Your task to perform on an android device: find photos in the google photos app Image 0: 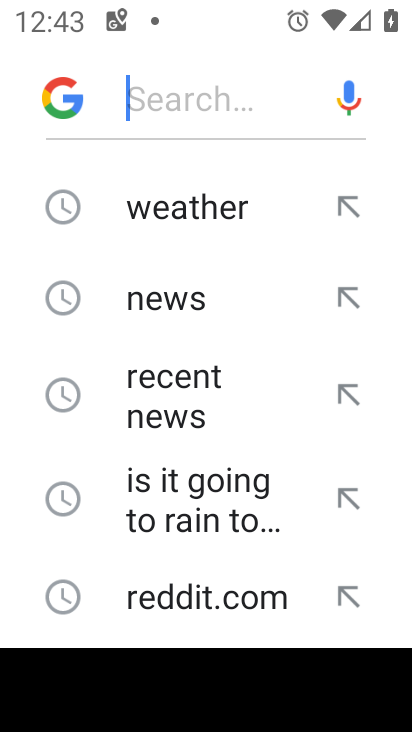
Step 0: press home button
Your task to perform on an android device: find photos in the google photos app Image 1: 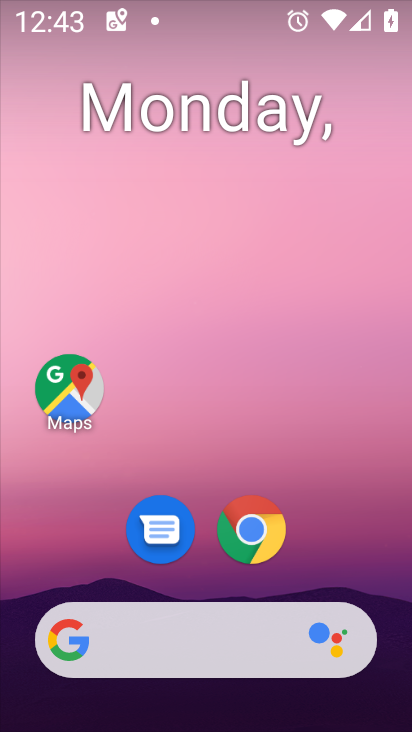
Step 1: drag from (166, 678) to (192, 115)
Your task to perform on an android device: find photos in the google photos app Image 2: 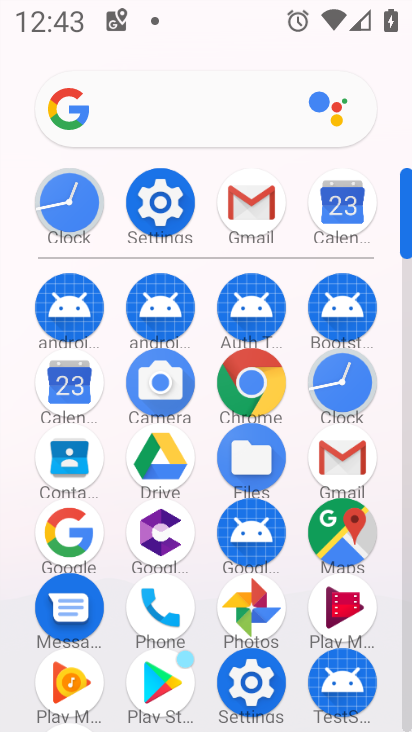
Step 2: click (250, 614)
Your task to perform on an android device: find photos in the google photos app Image 3: 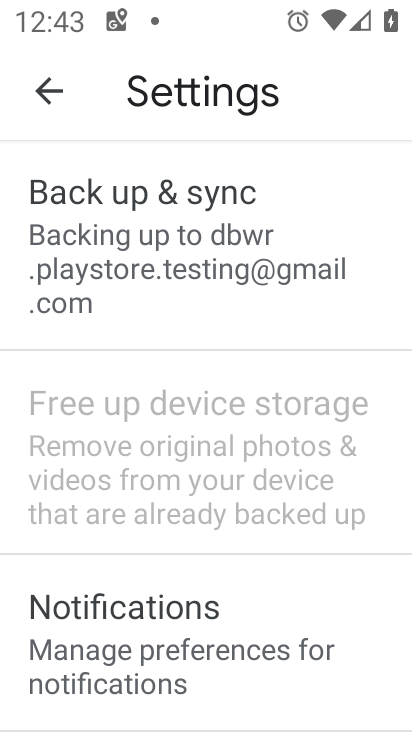
Step 3: click (47, 91)
Your task to perform on an android device: find photos in the google photos app Image 4: 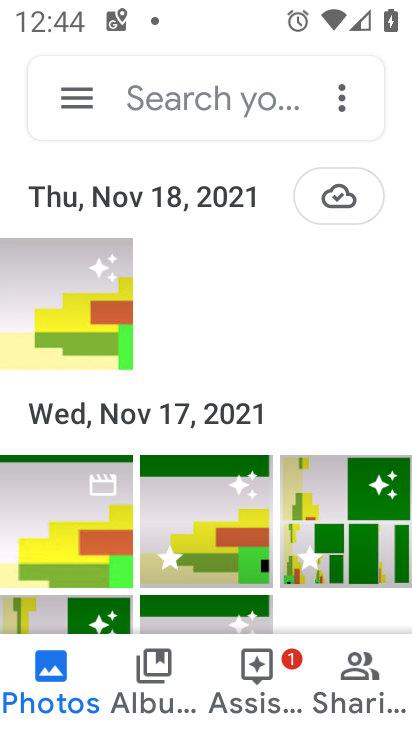
Step 4: task complete